Your task to perform on an android device: Search for the new Nike Air Max 270 on Nike.com Image 0: 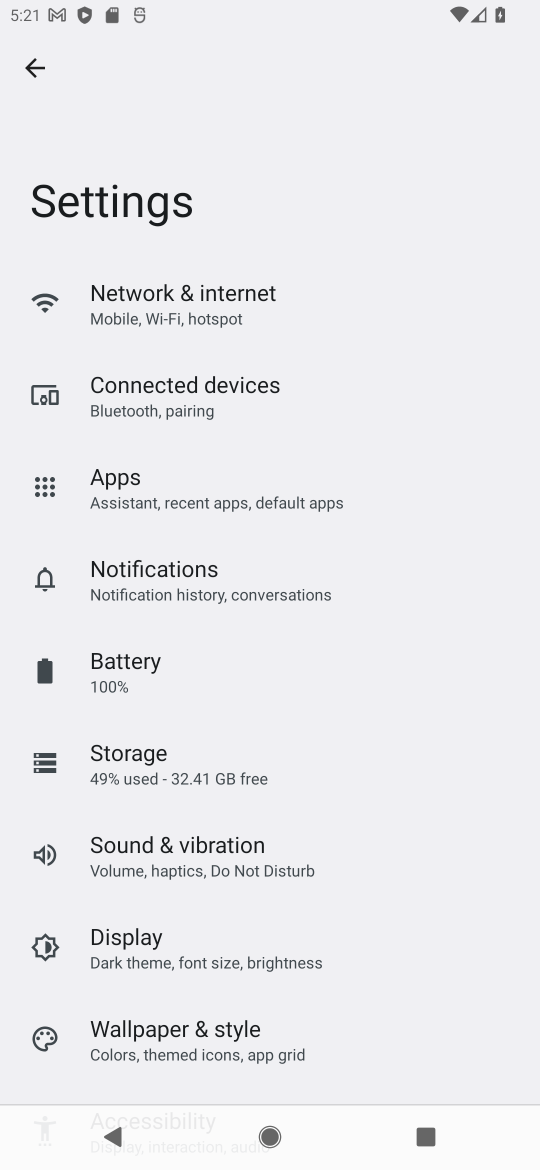
Step 0: press home button
Your task to perform on an android device: Search for the new Nike Air Max 270 on Nike.com Image 1: 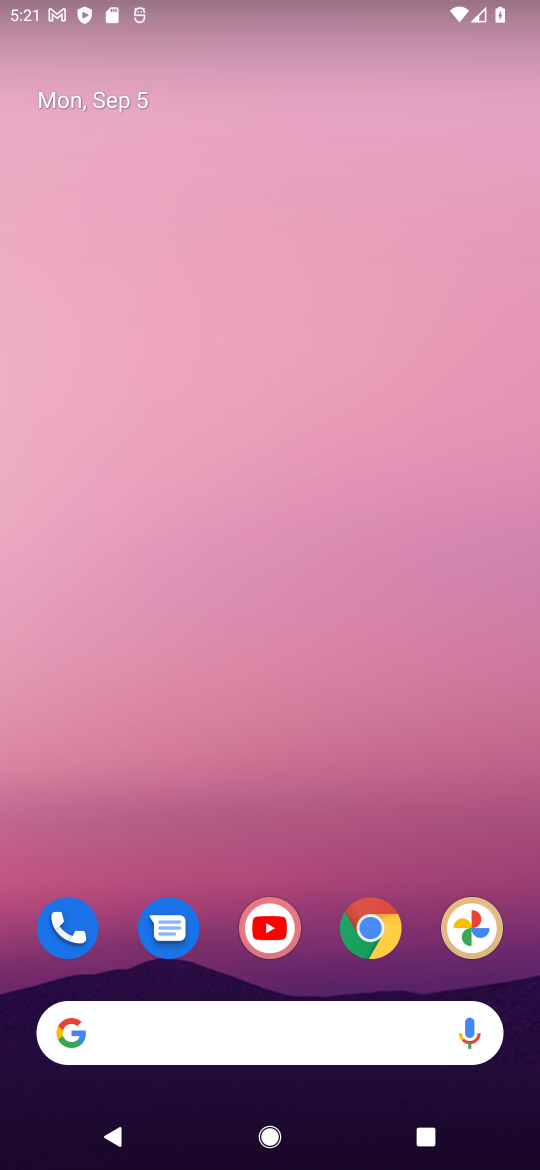
Step 1: click (377, 931)
Your task to perform on an android device: Search for the new Nike Air Max 270 on Nike.com Image 2: 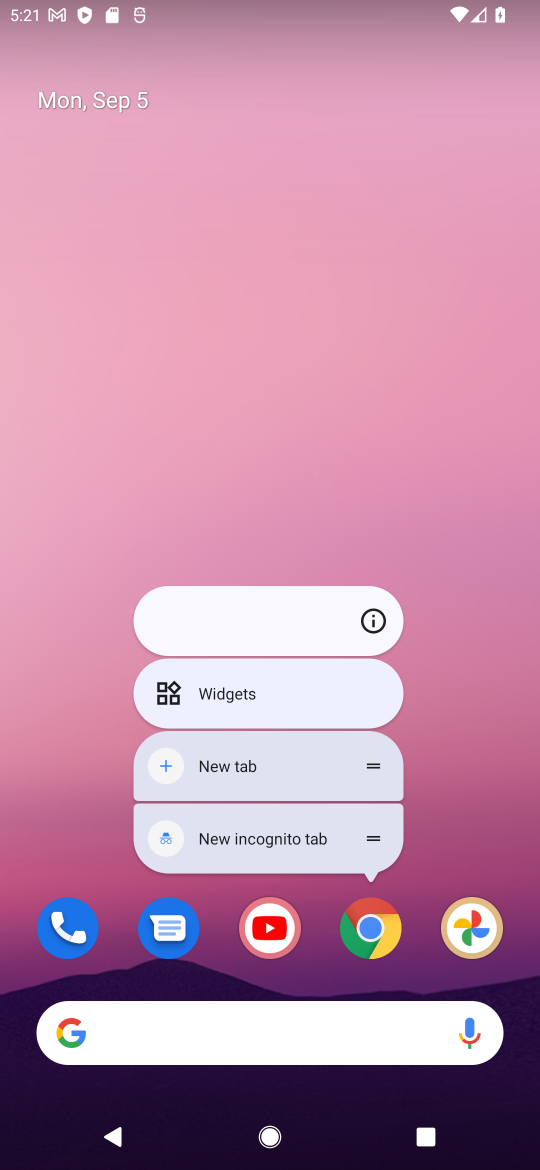
Step 2: click (377, 931)
Your task to perform on an android device: Search for the new Nike Air Max 270 on Nike.com Image 3: 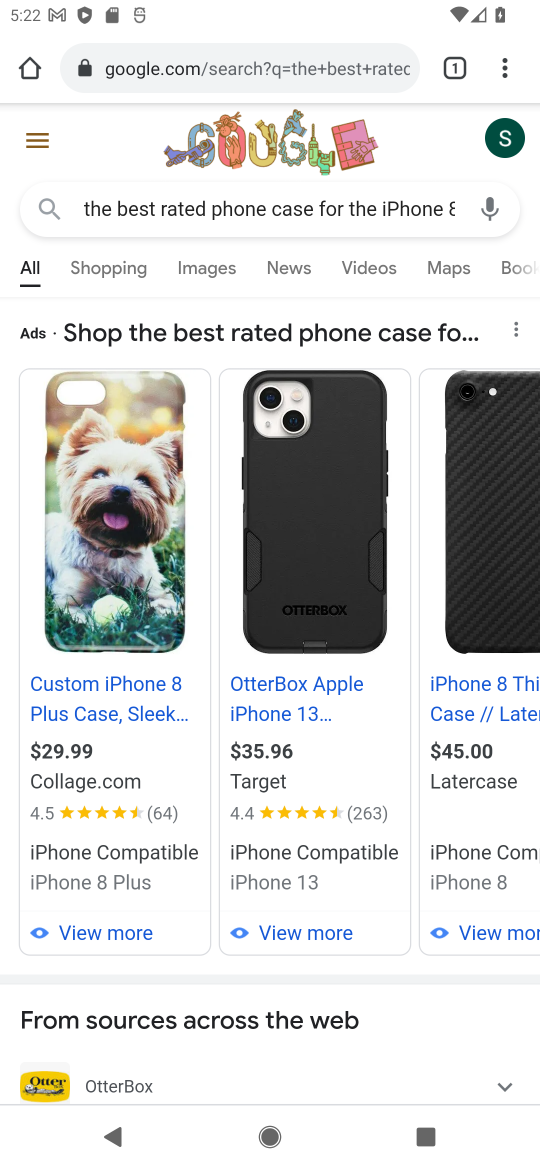
Step 3: click (243, 44)
Your task to perform on an android device: Search for the new Nike Air Max 270 on Nike.com Image 4: 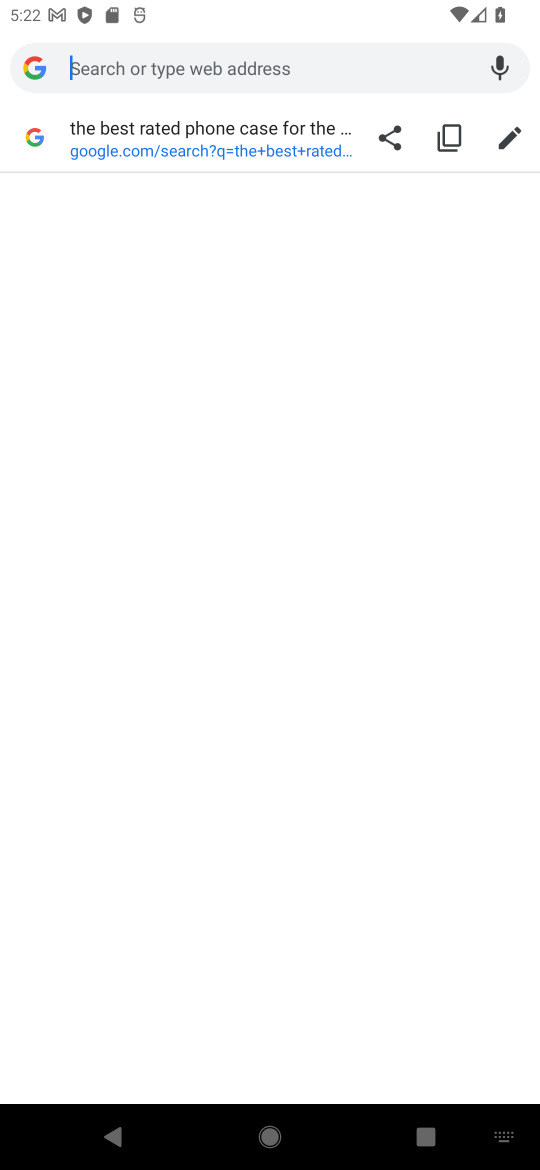
Step 4: type "Nike.com"
Your task to perform on an android device: Search for the new Nike Air Max 270 on Nike.com Image 5: 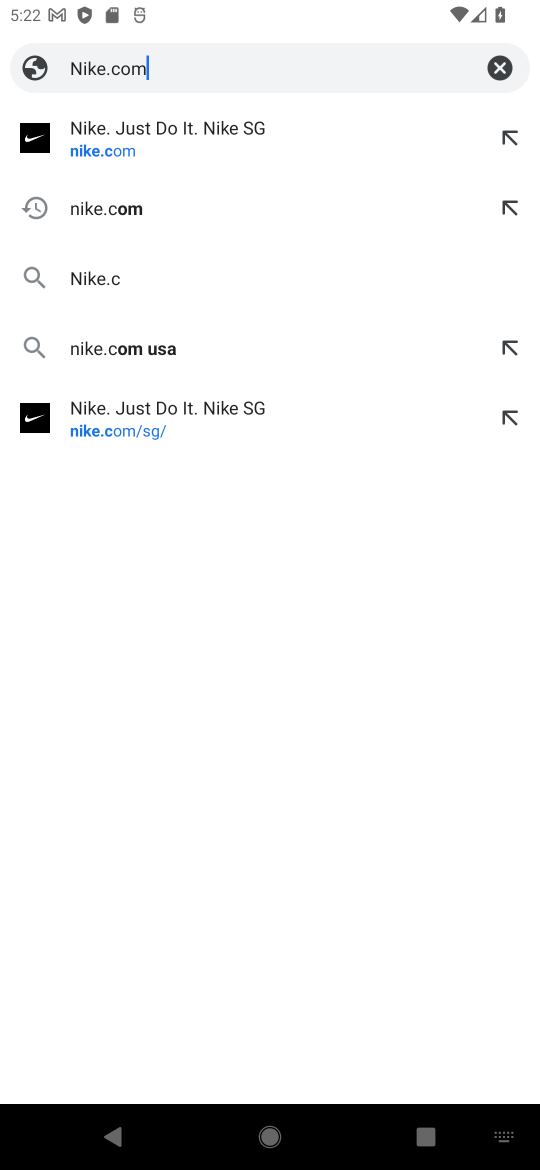
Step 5: click (122, 210)
Your task to perform on an android device: Search for the new Nike Air Max 270 on Nike.com Image 6: 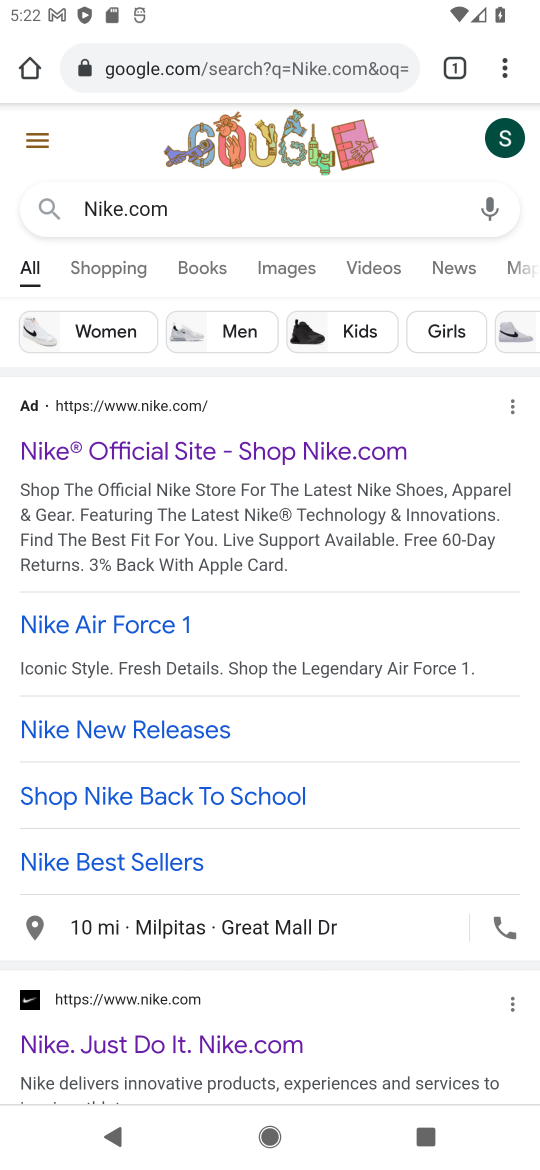
Step 6: click (103, 457)
Your task to perform on an android device: Search for the new Nike Air Max 270 on Nike.com Image 7: 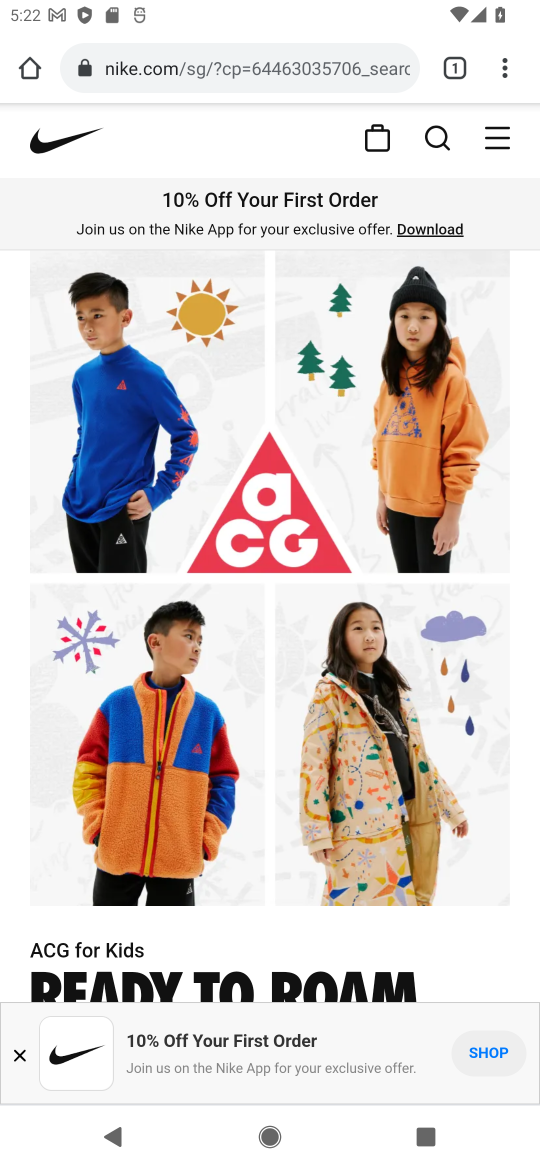
Step 7: click (434, 141)
Your task to perform on an android device: Search for the new Nike Air Max 270 on Nike.com Image 8: 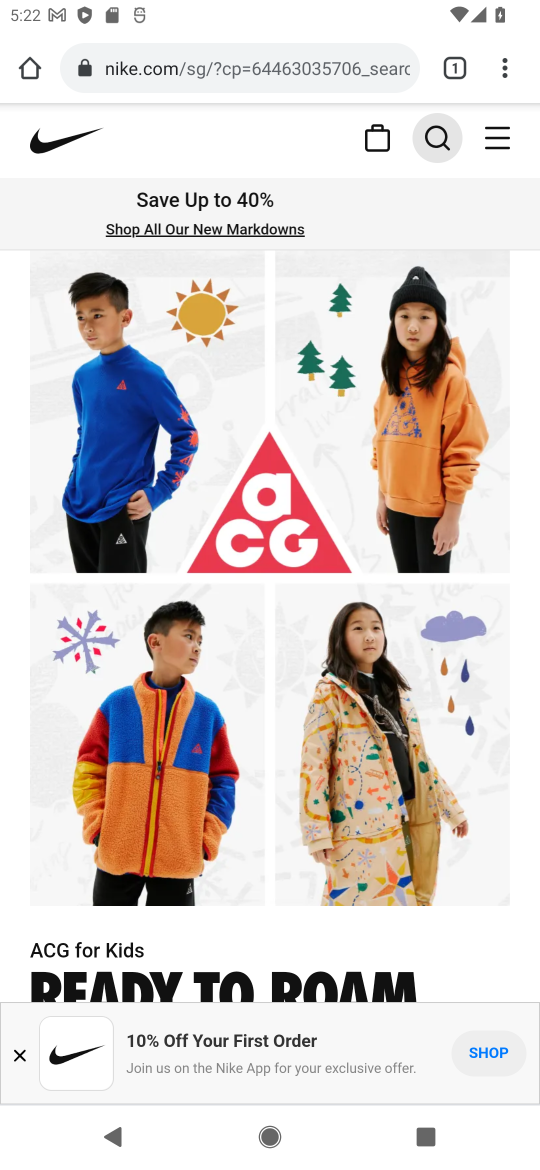
Step 8: type "the new Nike Air Max 270"
Your task to perform on an android device: Search for the new Nike Air Max 270 on Nike.com Image 9: 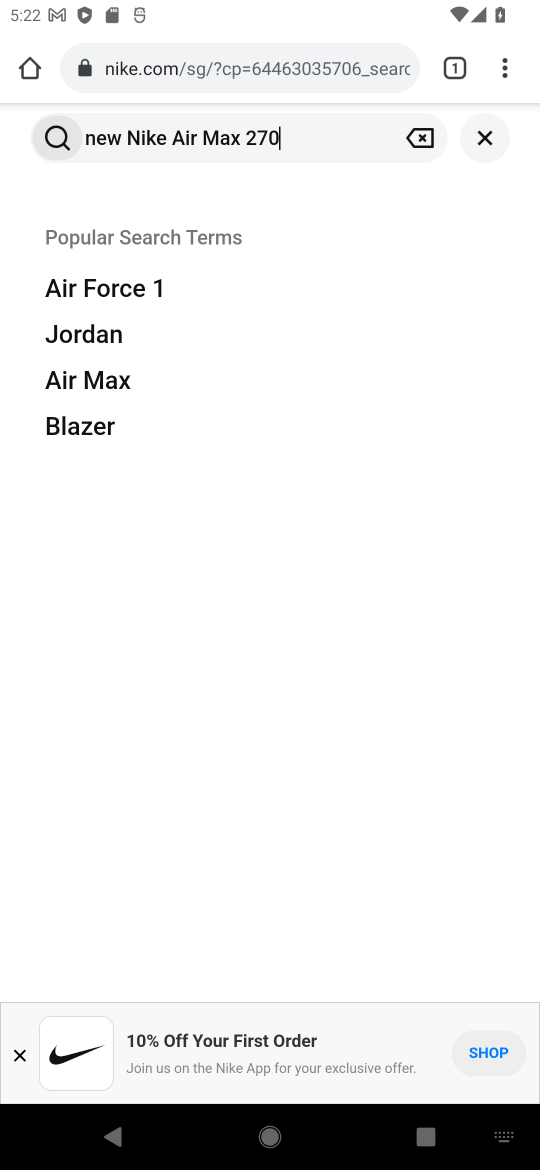
Step 9: click (51, 137)
Your task to perform on an android device: Search for the new Nike Air Max 270 on Nike.com Image 10: 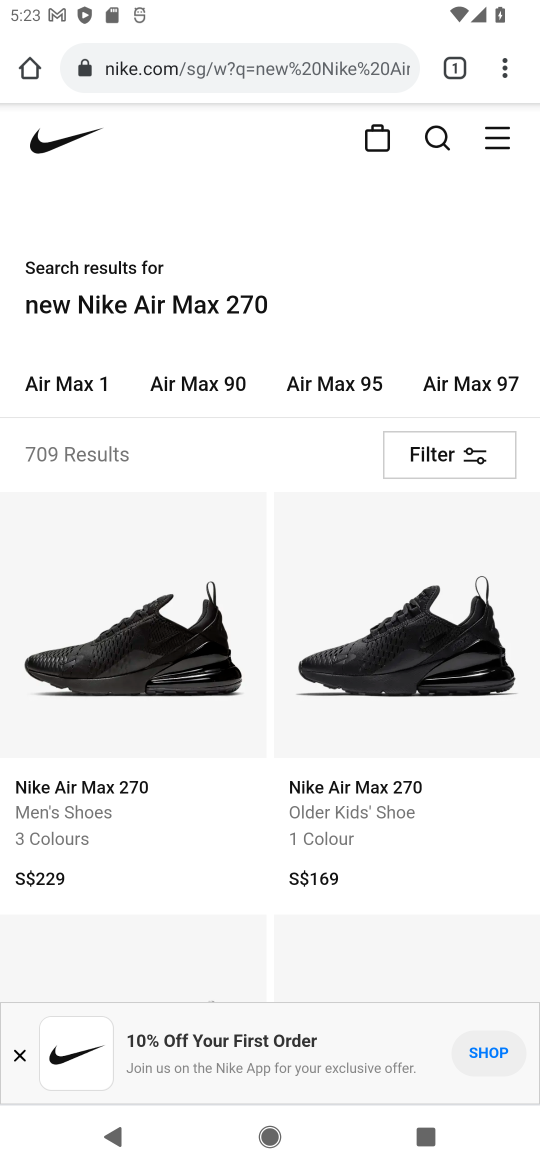
Step 10: task complete